Your task to perform on an android device: Go to eBay Image 0: 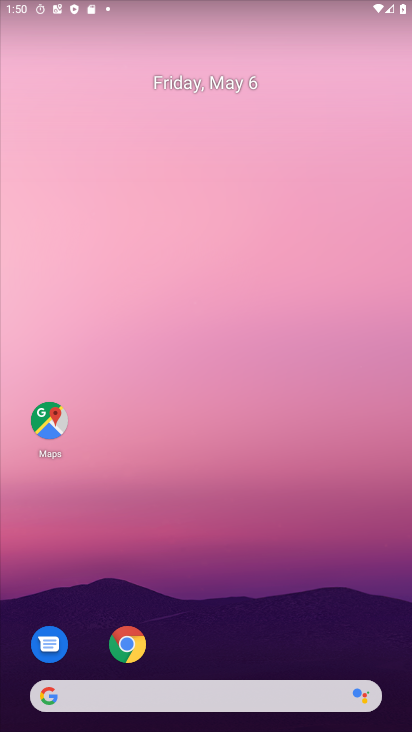
Step 0: click (297, 692)
Your task to perform on an android device: Go to eBay Image 1: 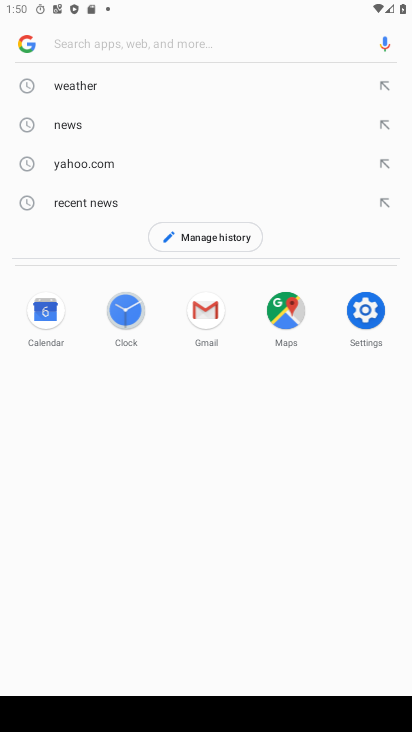
Step 1: click (225, 44)
Your task to perform on an android device: Go to eBay Image 2: 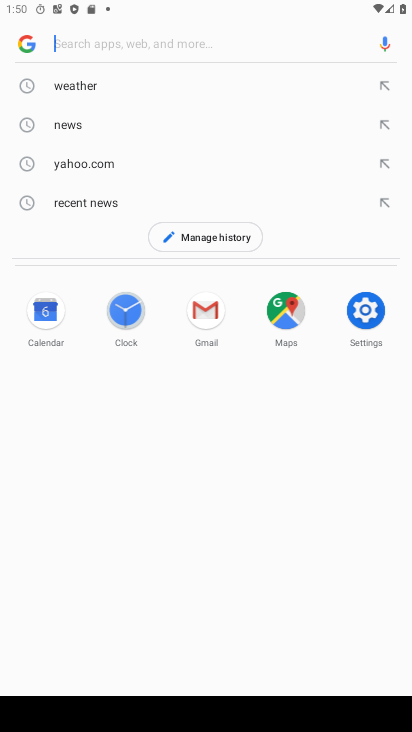
Step 2: type "ebay.com"
Your task to perform on an android device: Go to eBay Image 3: 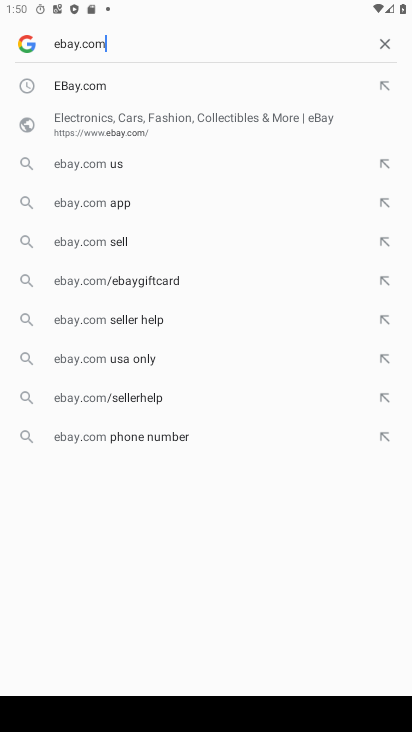
Step 3: click (301, 130)
Your task to perform on an android device: Go to eBay Image 4: 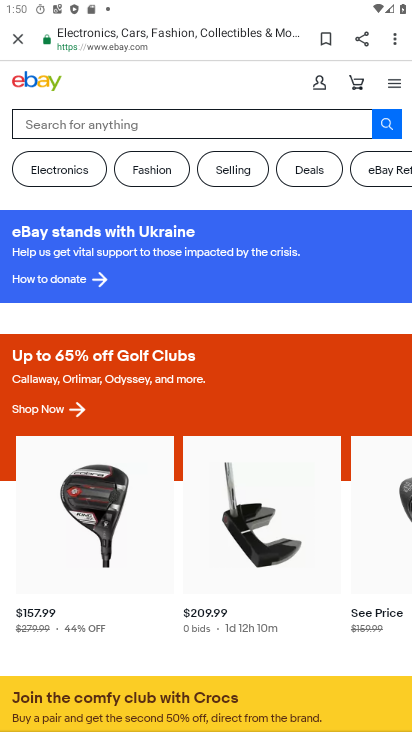
Step 4: task complete